Your task to perform on an android device: turn off notifications in google photos Image 0: 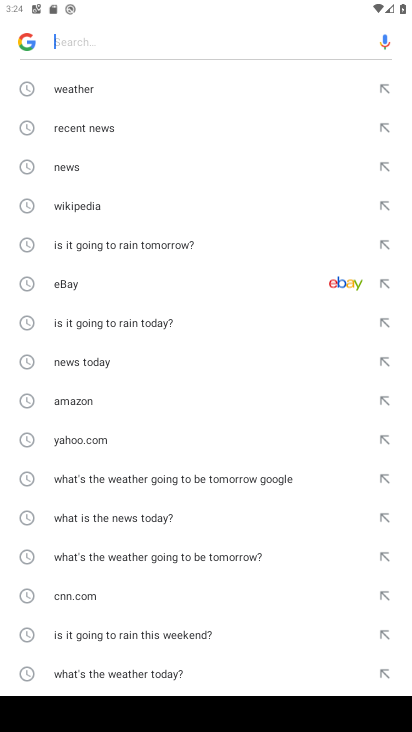
Step 0: press home button
Your task to perform on an android device: turn off notifications in google photos Image 1: 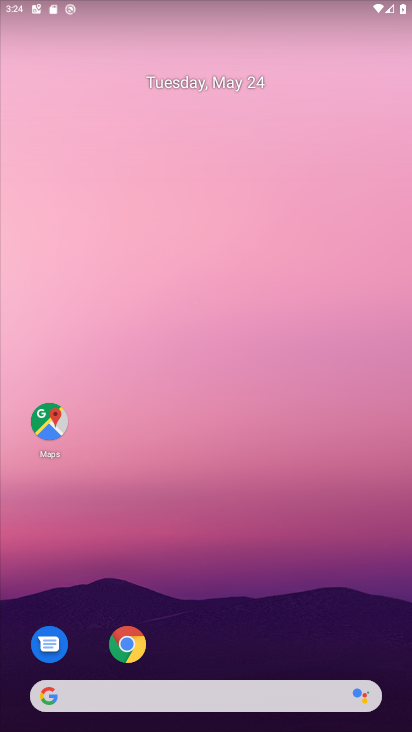
Step 1: drag from (293, 606) to (249, 164)
Your task to perform on an android device: turn off notifications in google photos Image 2: 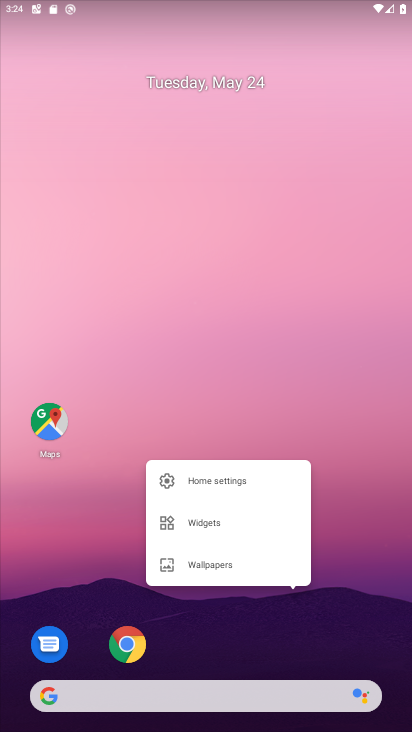
Step 2: click (249, 147)
Your task to perform on an android device: turn off notifications in google photos Image 3: 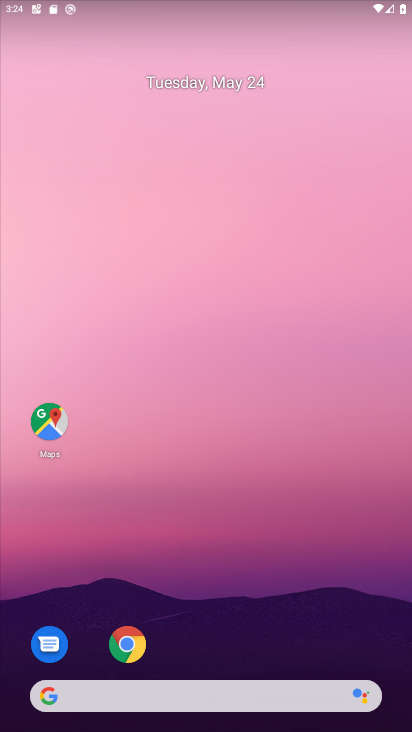
Step 3: drag from (277, 618) to (115, 110)
Your task to perform on an android device: turn off notifications in google photos Image 4: 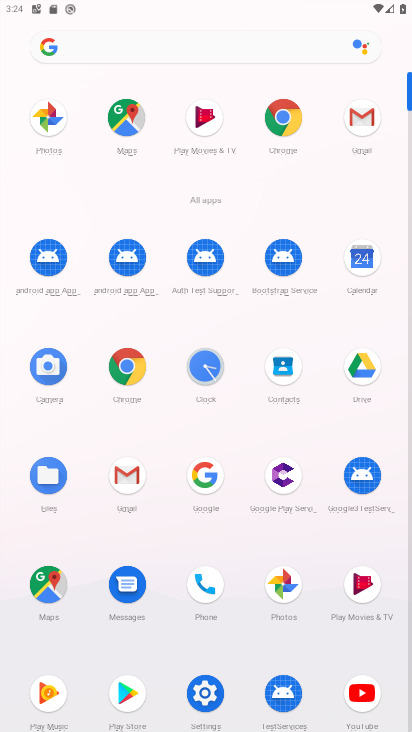
Step 4: click (292, 576)
Your task to perform on an android device: turn off notifications in google photos Image 5: 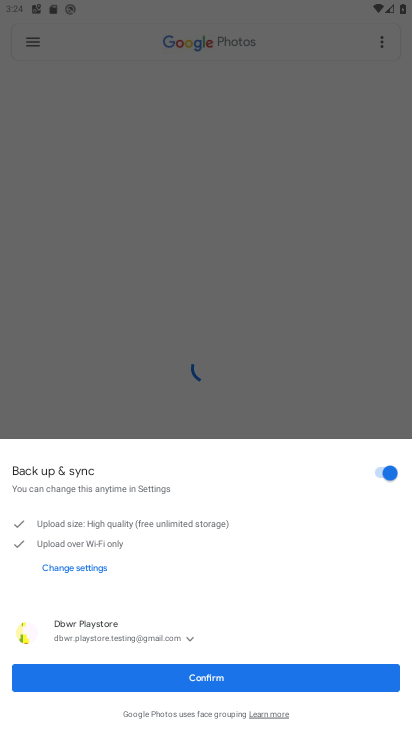
Step 5: click (333, 668)
Your task to perform on an android device: turn off notifications in google photos Image 6: 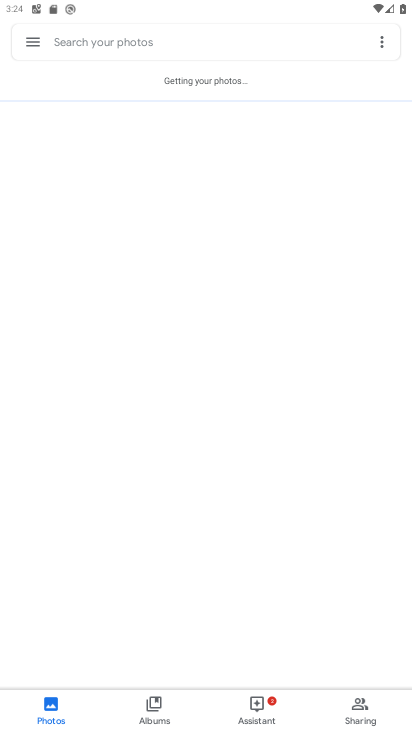
Step 6: click (18, 51)
Your task to perform on an android device: turn off notifications in google photos Image 7: 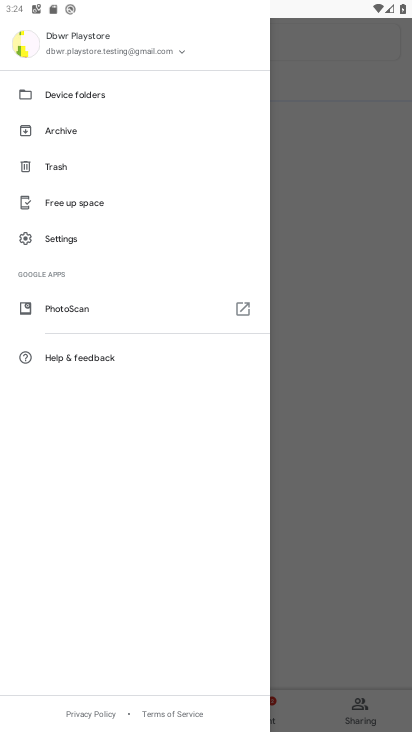
Step 7: click (52, 230)
Your task to perform on an android device: turn off notifications in google photos Image 8: 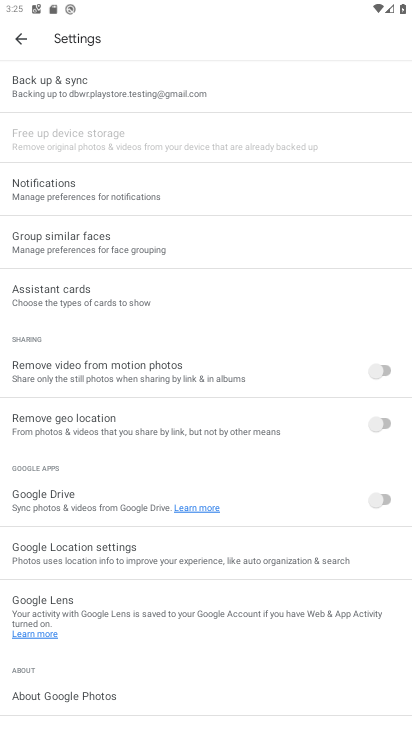
Step 8: click (30, 199)
Your task to perform on an android device: turn off notifications in google photos Image 9: 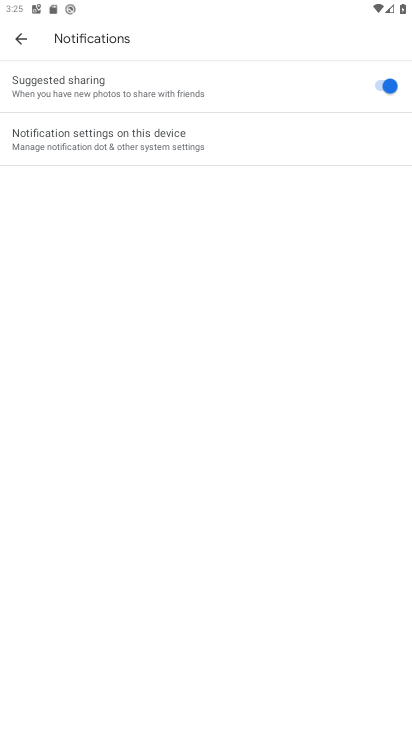
Step 9: click (88, 111)
Your task to perform on an android device: turn off notifications in google photos Image 10: 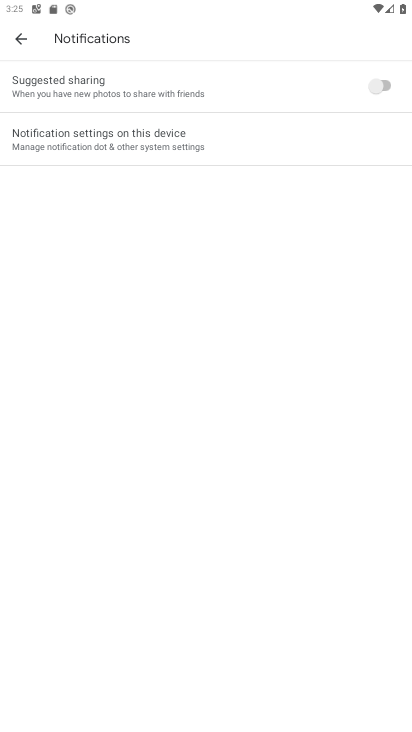
Step 10: task complete